Your task to perform on an android device: change the clock style Image 0: 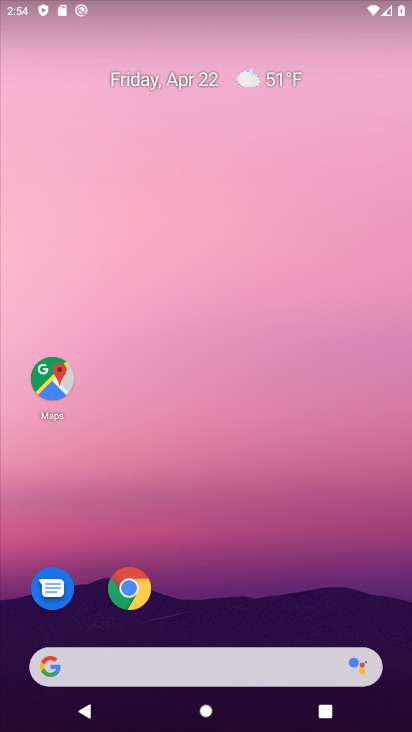
Step 0: drag from (358, 598) to (361, 117)
Your task to perform on an android device: change the clock style Image 1: 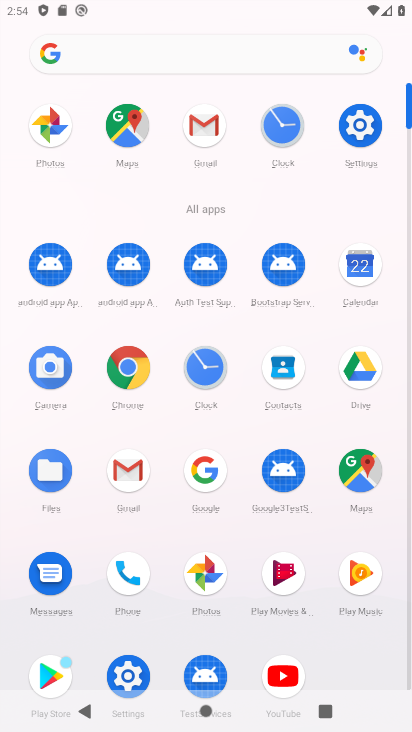
Step 1: click (210, 373)
Your task to perform on an android device: change the clock style Image 2: 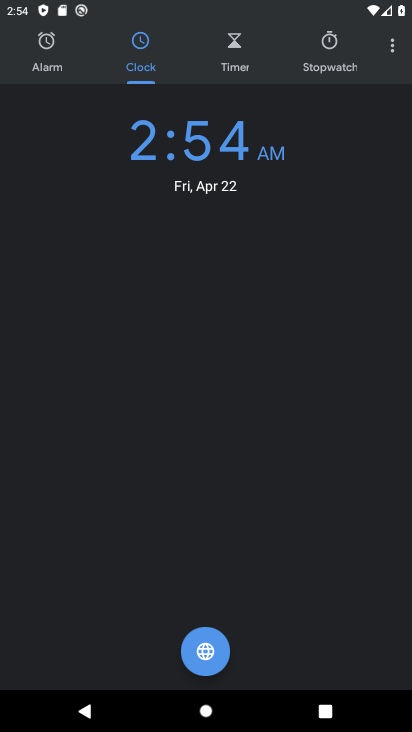
Step 2: click (392, 51)
Your task to perform on an android device: change the clock style Image 3: 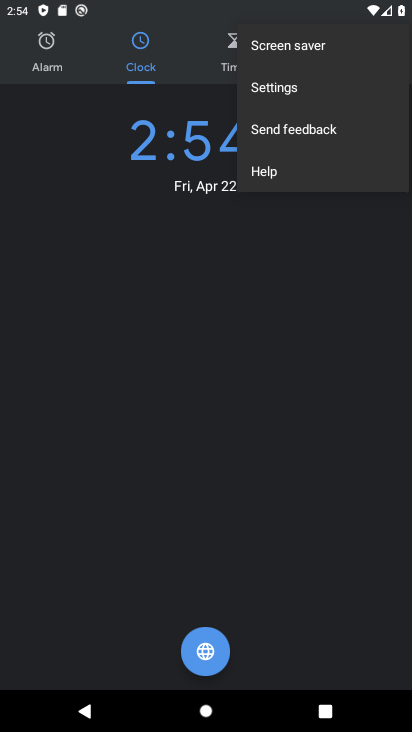
Step 3: click (322, 92)
Your task to perform on an android device: change the clock style Image 4: 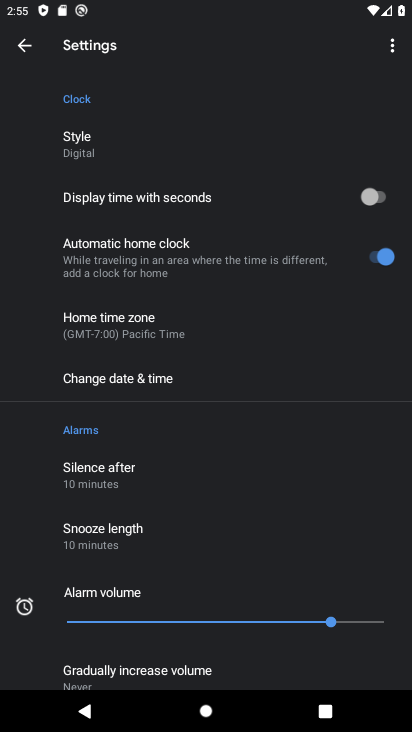
Step 4: drag from (311, 530) to (306, 349)
Your task to perform on an android device: change the clock style Image 5: 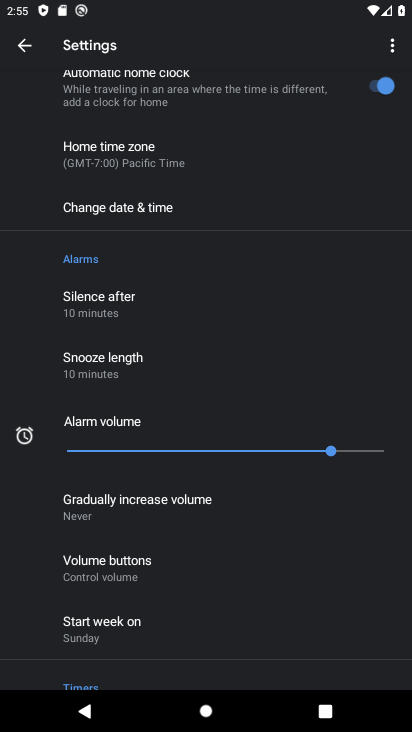
Step 5: drag from (288, 572) to (290, 385)
Your task to perform on an android device: change the clock style Image 6: 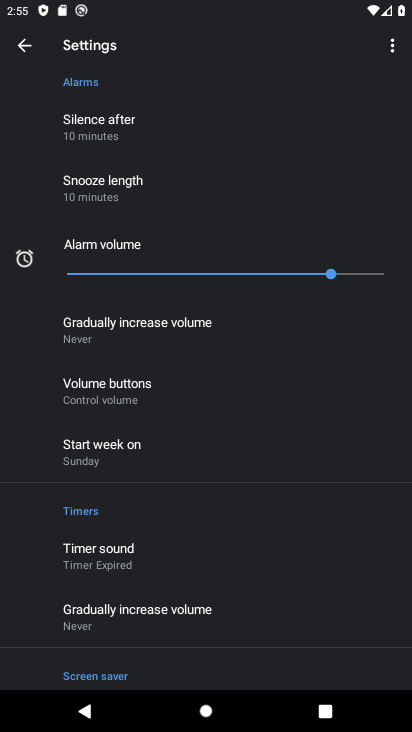
Step 6: drag from (307, 559) to (321, 363)
Your task to perform on an android device: change the clock style Image 7: 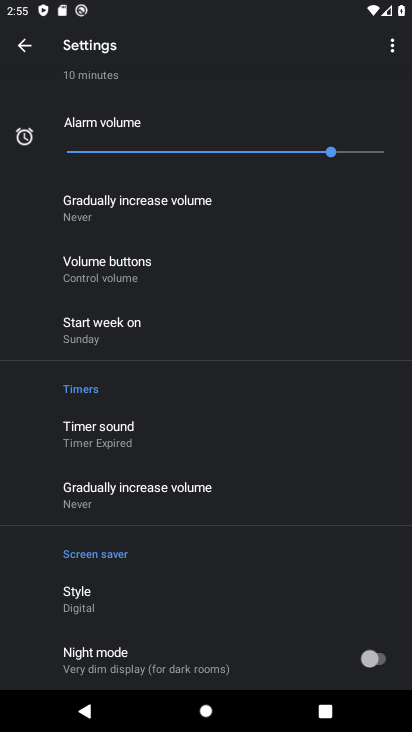
Step 7: drag from (320, 277) to (318, 452)
Your task to perform on an android device: change the clock style Image 8: 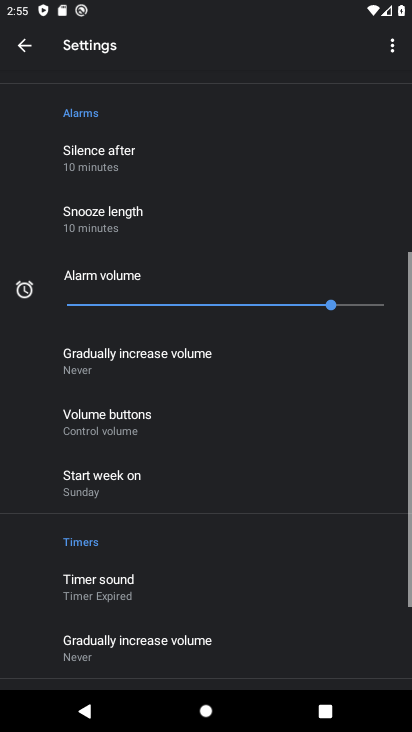
Step 8: drag from (332, 214) to (305, 419)
Your task to perform on an android device: change the clock style Image 9: 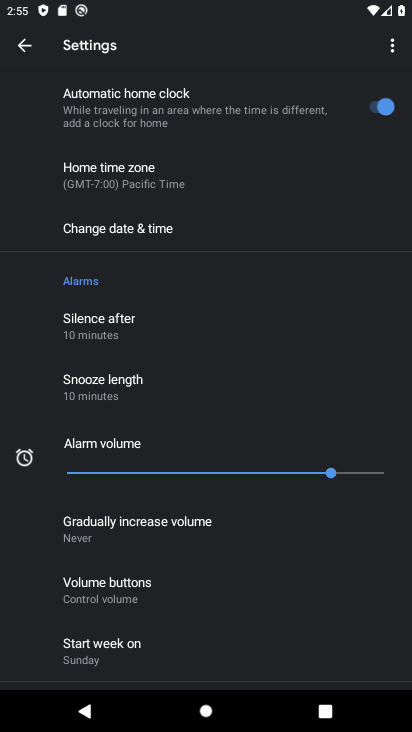
Step 9: drag from (300, 212) to (298, 392)
Your task to perform on an android device: change the clock style Image 10: 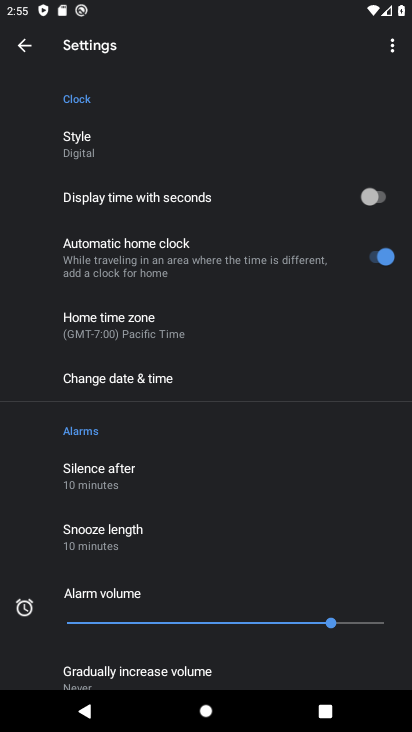
Step 10: drag from (284, 194) to (263, 366)
Your task to perform on an android device: change the clock style Image 11: 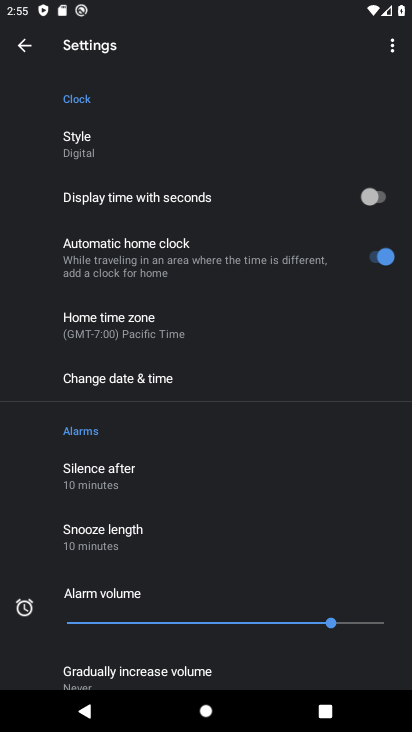
Step 11: click (89, 152)
Your task to perform on an android device: change the clock style Image 12: 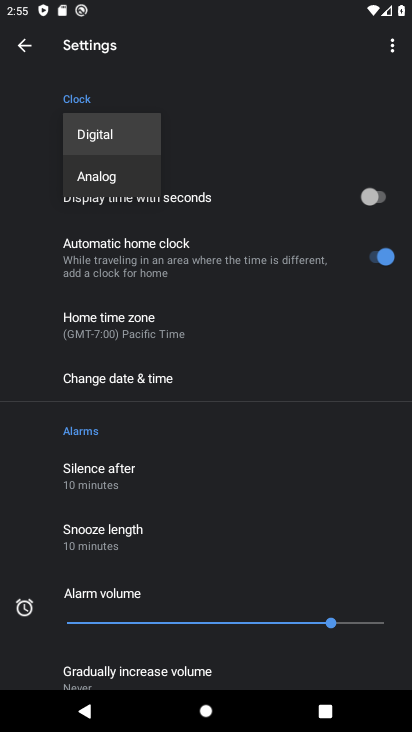
Step 12: click (105, 172)
Your task to perform on an android device: change the clock style Image 13: 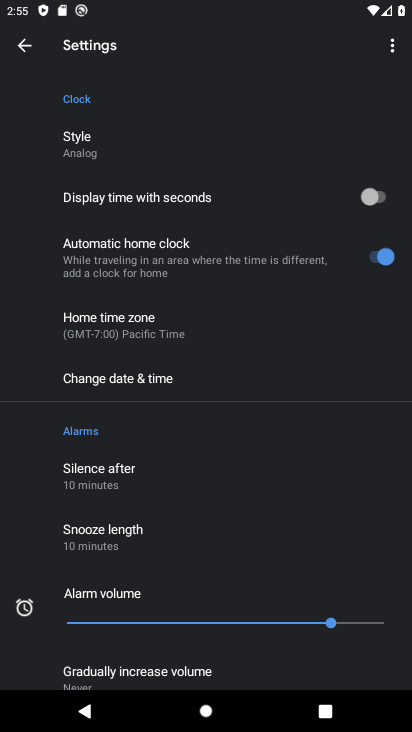
Step 13: task complete